Your task to perform on an android device: move a message to another label in the gmail app Image 0: 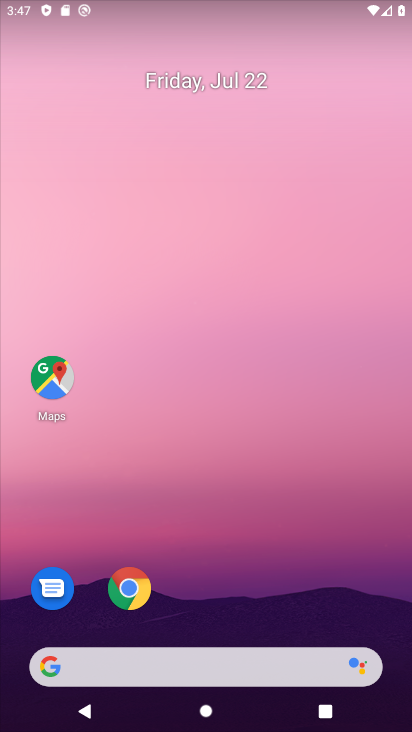
Step 0: drag from (320, 614) to (294, 54)
Your task to perform on an android device: move a message to another label in the gmail app Image 1: 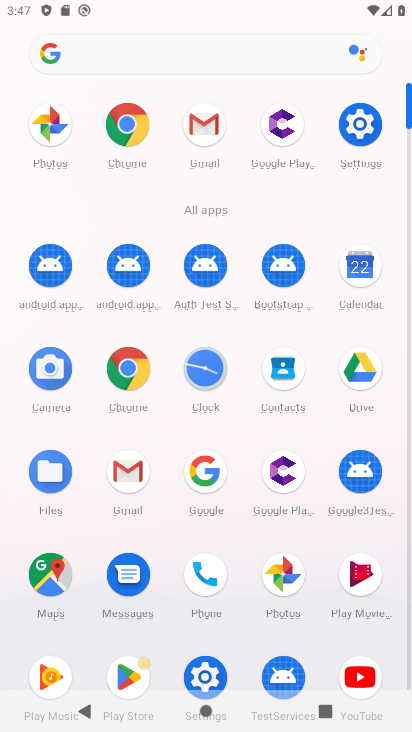
Step 1: click (204, 131)
Your task to perform on an android device: move a message to another label in the gmail app Image 2: 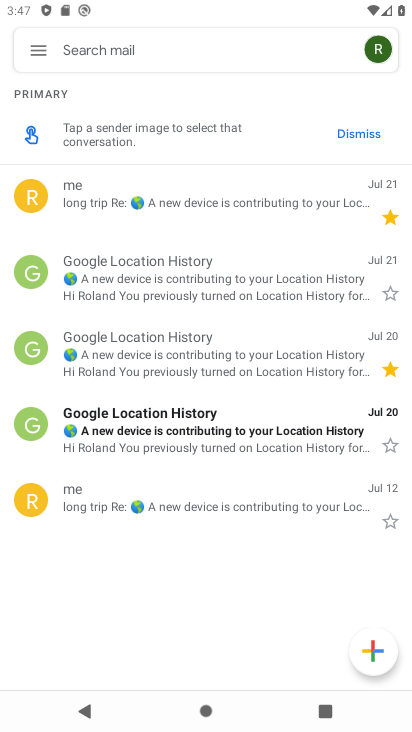
Step 2: click (217, 212)
Your task to perform on an android device: move a message to another label in the gmail app Image 3: 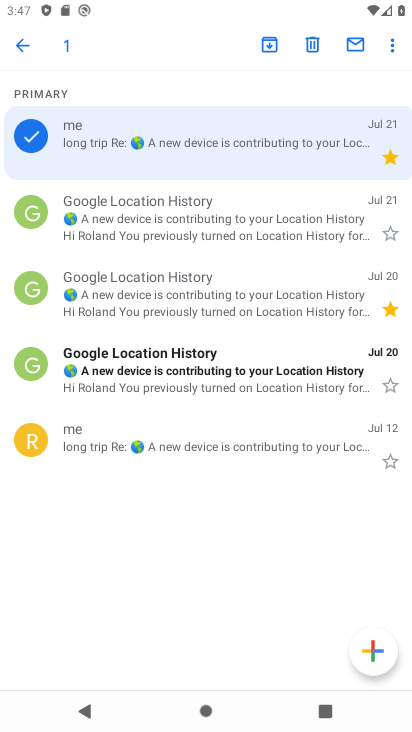
Step 3: click (384, 55)
Your task to perform on an android device: move a message to another label in the gmail app Image 4: 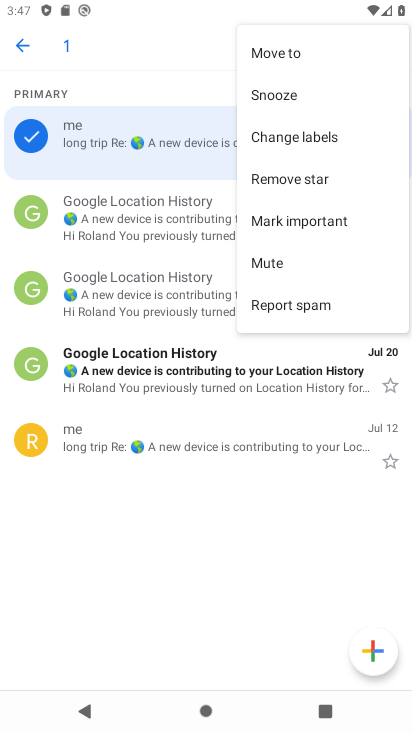
Step 4: click (362, 49)
Your task to perform on an android device: move a message to another label in the gmail app Image 5: 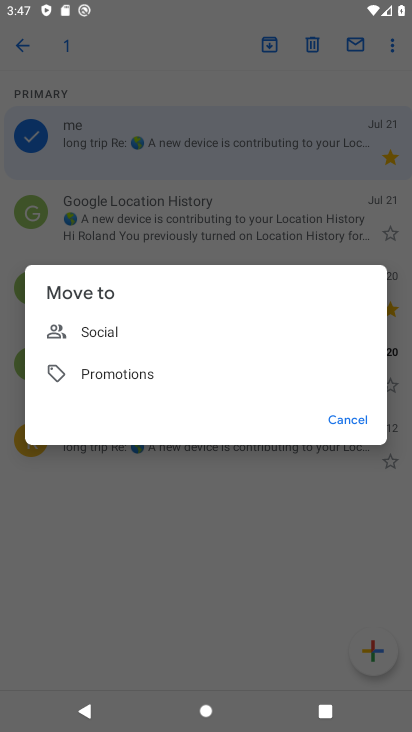
Step 5: click (191, 347)
Your task to perform on an android device: move a message to another label in the gmail app Image 6: 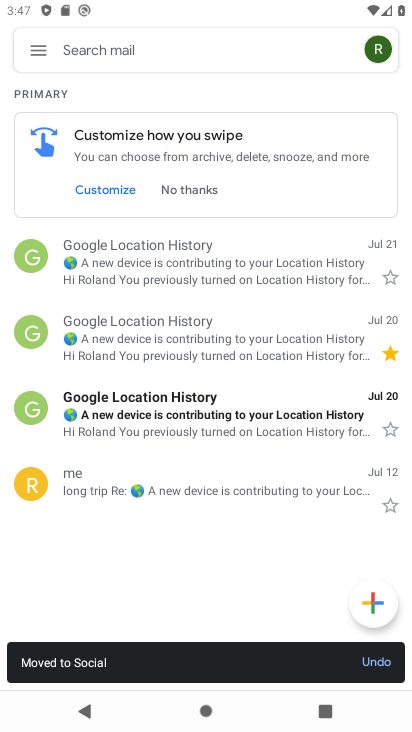
Step 6: task complete